Your task to perform on an android device: open app "Expedia: Hotels, Flights & Car" (install if not already installed) Image 0: 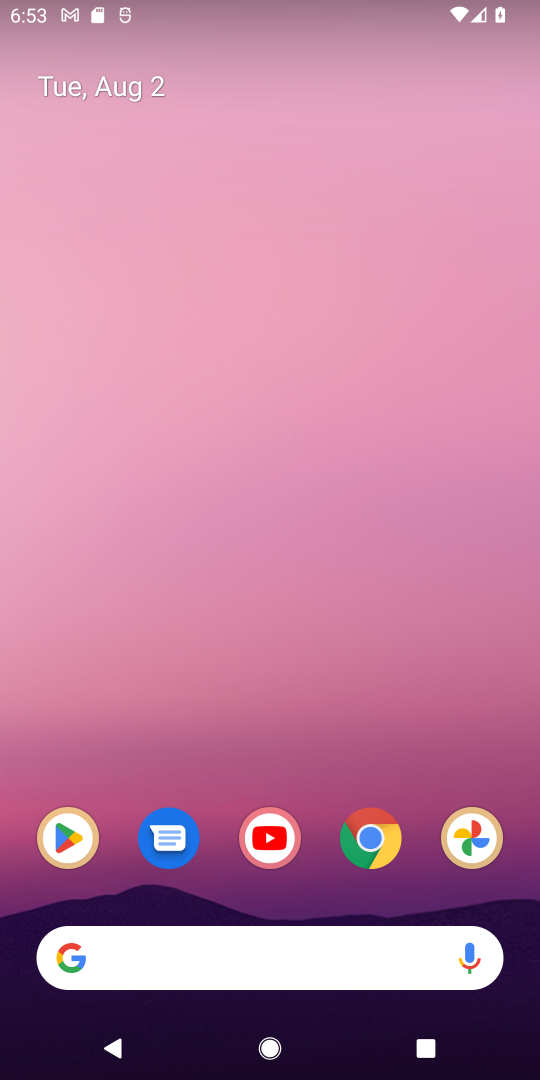
Step 0: click (60, 846)
Your task to perform on an android device: open app "Expedia: Hotels, Flights & Car" (install if not already installed) Image 1: 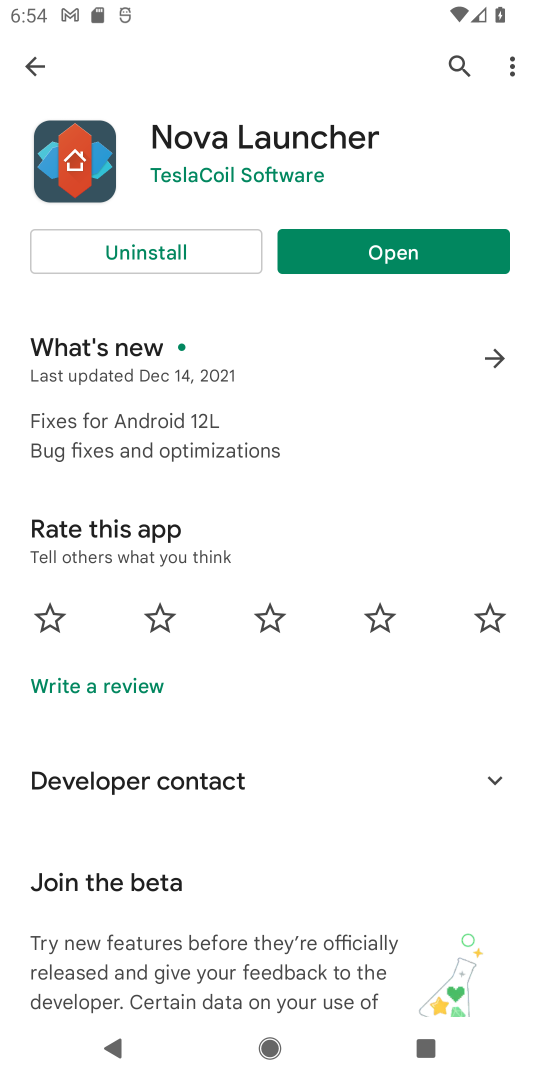
Step 1: click (456, 65)
Your task to perform on an android device: open app "Expedia: Hotels, Flights & Car" (install if not already installed) Image 2: 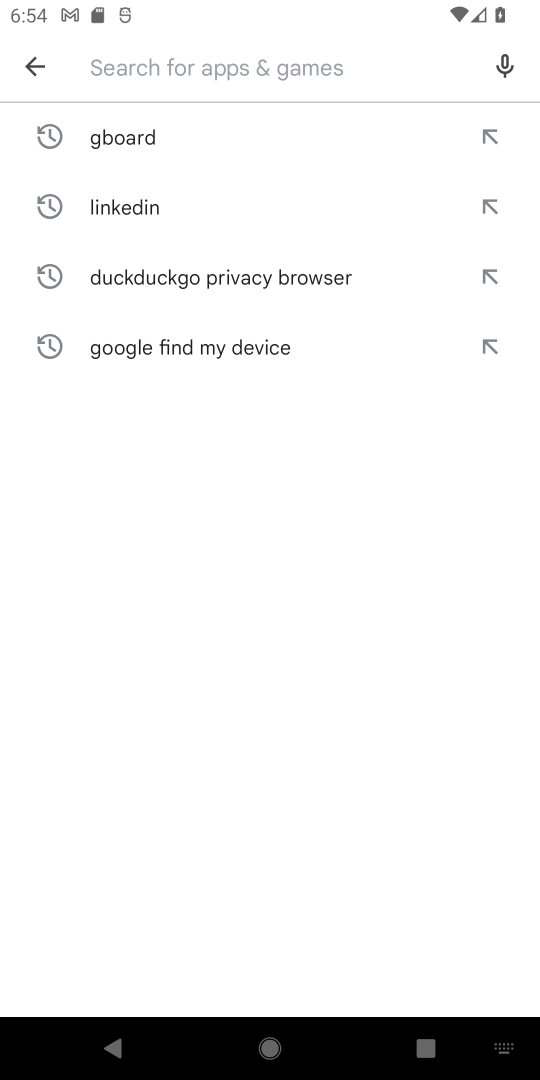
Step 2: type "expedia: hotels, flights & car"
Your task to perform on an android device: open app "Expedia: Hotels, Flights & Car" (install if not already installed) Image 3: 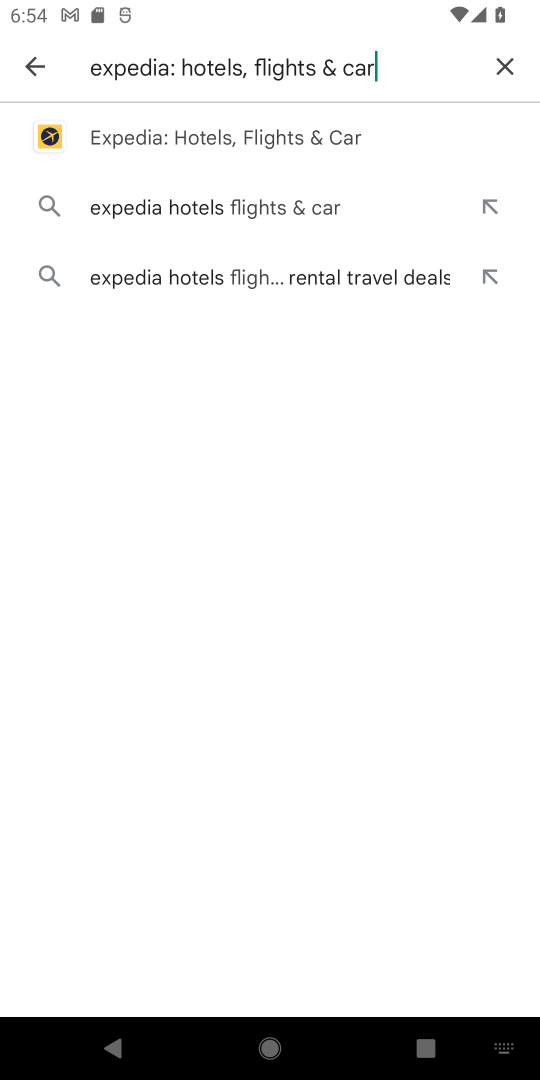
Step 3: click (291, 134)
Your task to perform on an android device: open app "Expedia: Hotels, Flights & Car" (install if not already installed) Image 4: 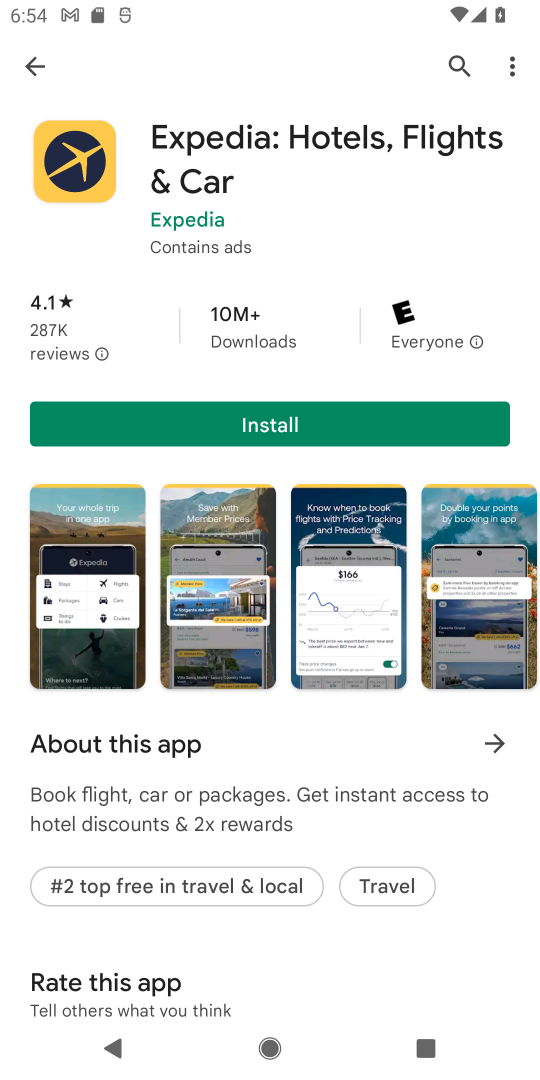
Step 4: click (197, 407)
Your task to perform on an android device: open app "Expedia: Hotels, Flights & Car" (install if not already installed) Image 5: 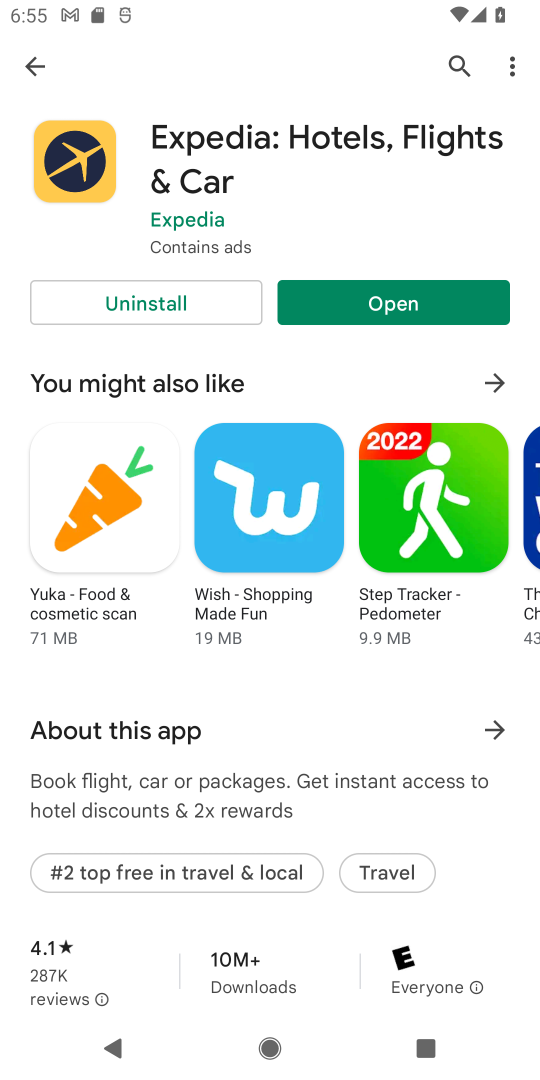
Step 5: click (363, 299)
Your task to perform on an android device: open app "Expedia: Hotels, Flights & Car" (install if not already installed) Image 6: 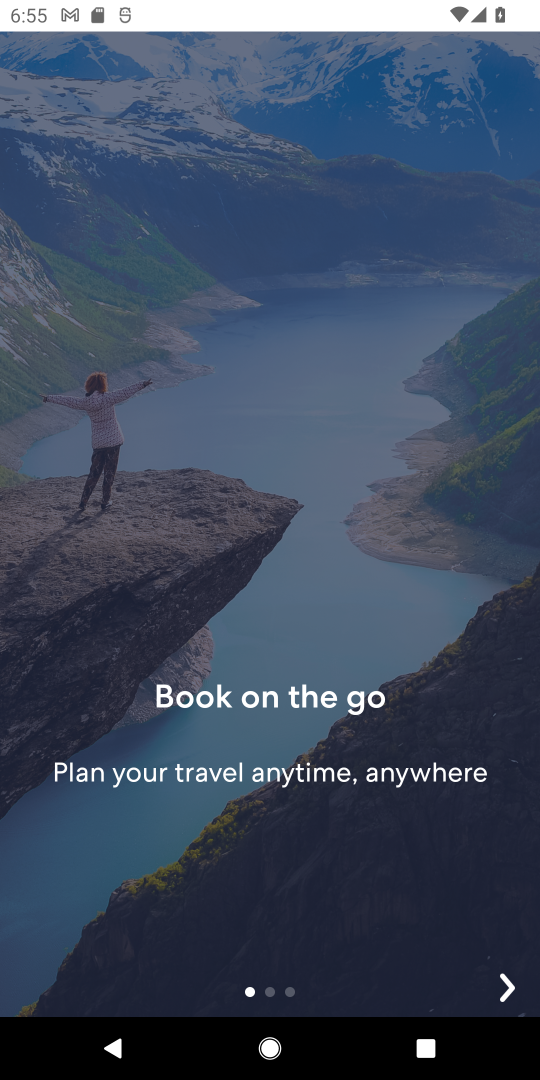
Step 6: task complete